Your task to perform on an android device: turn off translation in the chrome app Image 0: 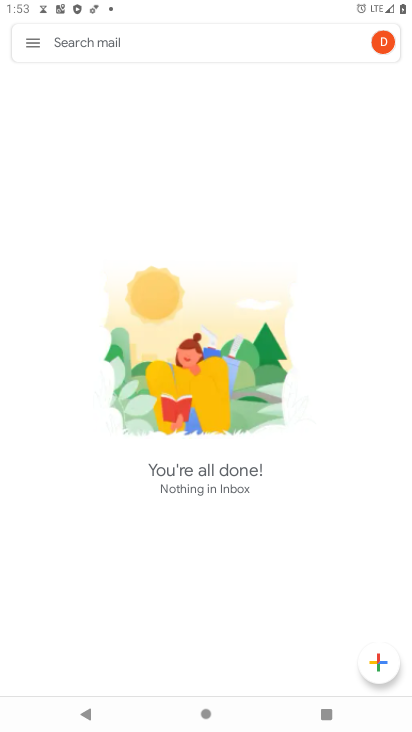
Step 0: press home button
Your task to perform on an android device: turn off translation in the chrome app Image 1: 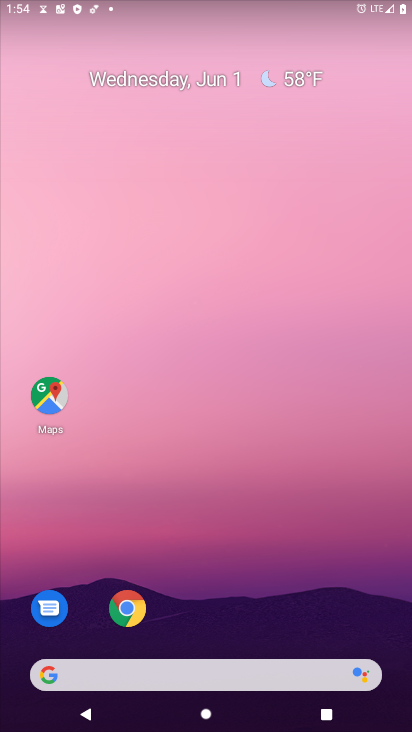
Step 1: click (109, 620)
Your task to perform on an android device: turn off translation in the chrome app Image 2: 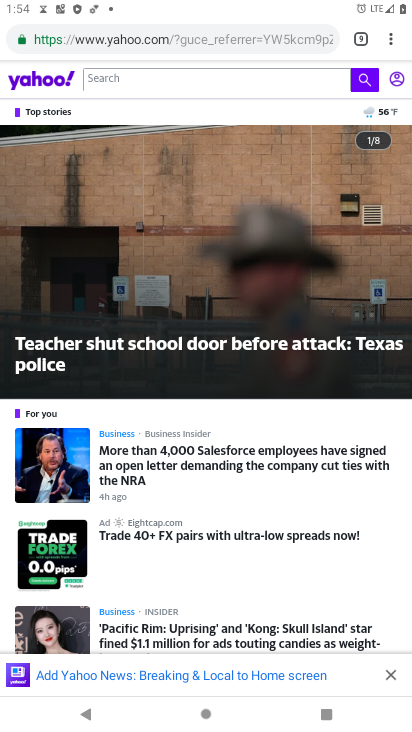
Step 2: press home button
Your task to perform on an android device: turn off translation in the chrome app Image 3: 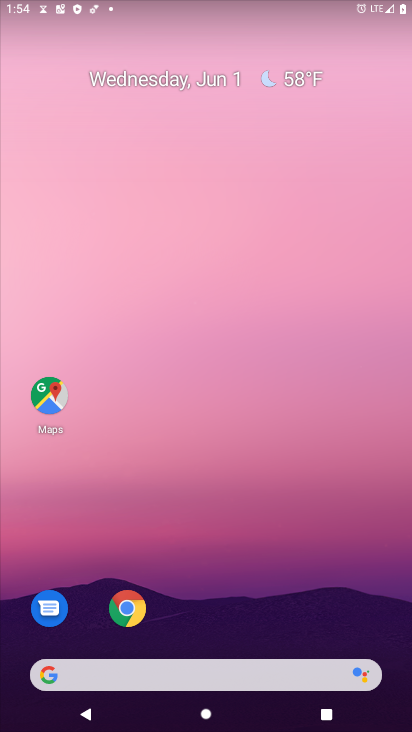
Step 3: click (129, 588)
Your task to perform on an android device: turn off translation in the chrome app Image 4: 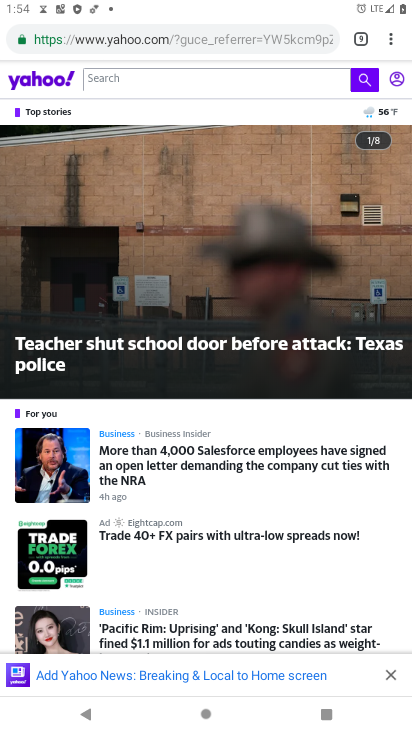
Step 4: click (387, 32)
Your task to perform on an android device: turn off translation in the chrome app Image 5: 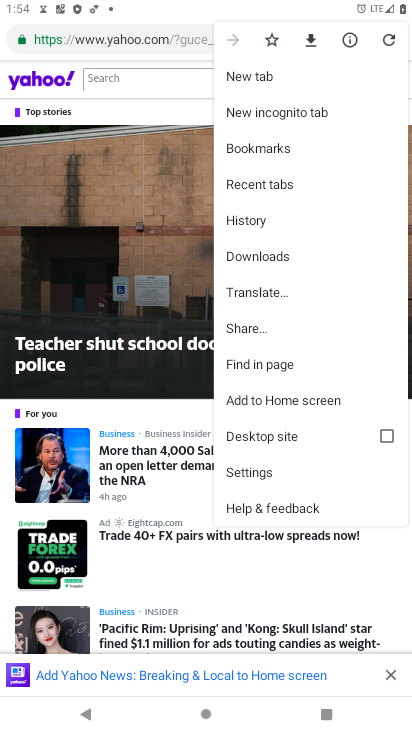
Step 5: click (251, 299)
Your task to perform on an android device: turn off translation in the chrome app Image 6: 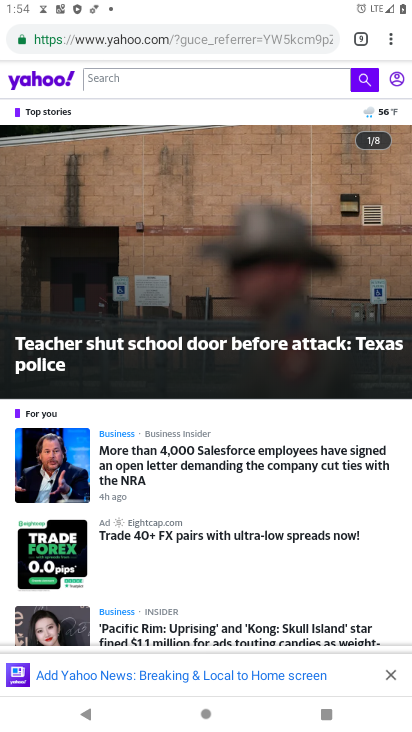
Step 6: click (396, 49)
Your task to perform on an android device: turn off translation in the chrome app Image 7: 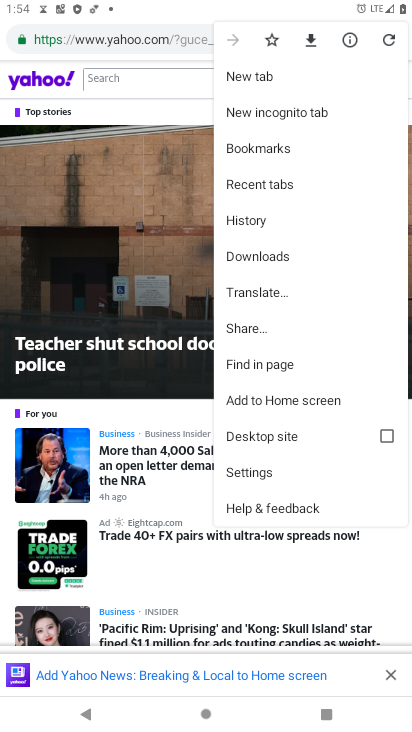
Step 7: click (252, 296)
Your task to perform on an android device: turn off translation in the chrome app Image 8: 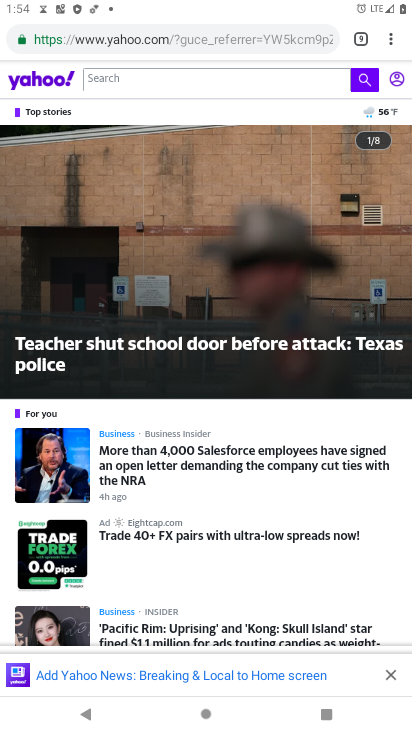
Step 8: task complete